Your task to perform on an android device: move an email to a new category in the gmail app Image 0: 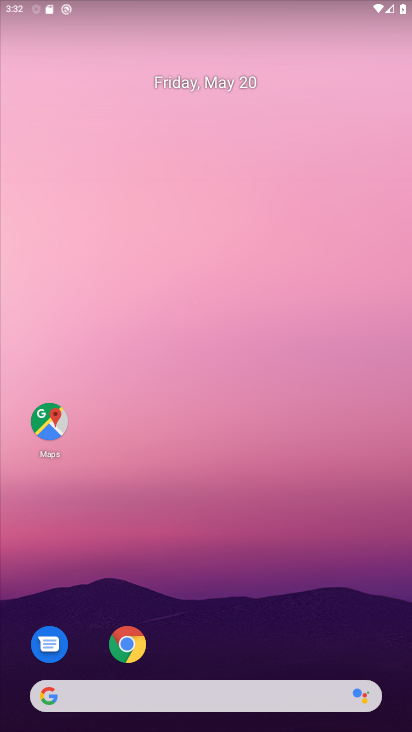
Step 0: drag from (266, 592) to (328, 213)
Your task to perform on an android device: move an email to a new category in the gmail app Image 1: 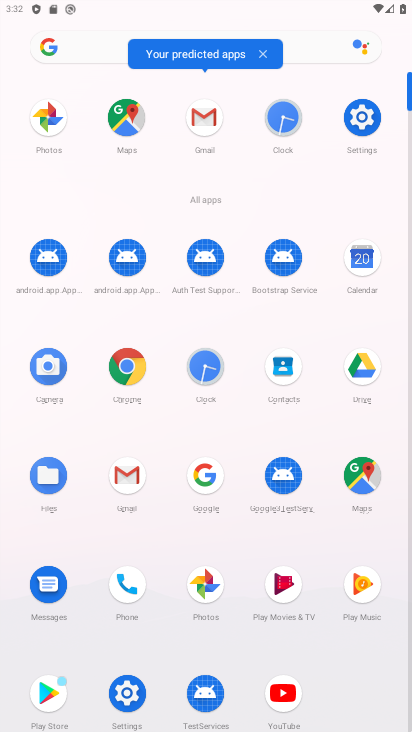
Step 1: click (129, 486)
Your task to perform on an android device: move an email to a new category in the gmail app Image 2: 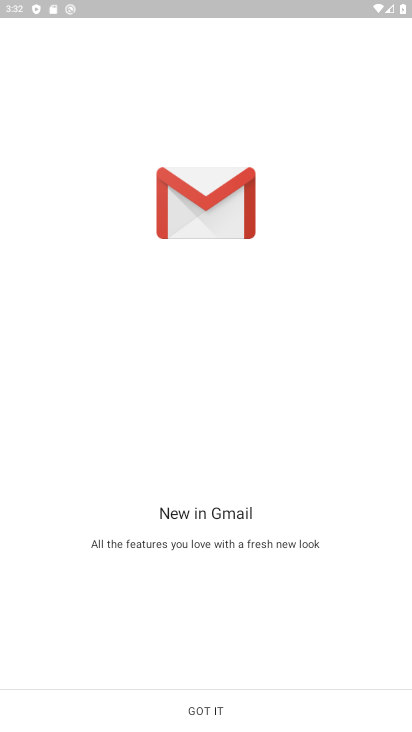
Step 2: click (200, 706)
Your task to perform on an android device: move an email to a new category in the gmail app Image 3: 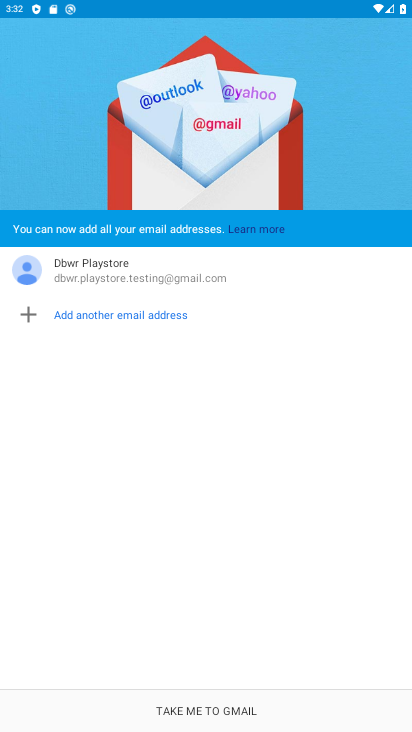
Step 3: click (202, 706)
Your task to perform on an android device: move an email to a new category in the gmail app Image 4: 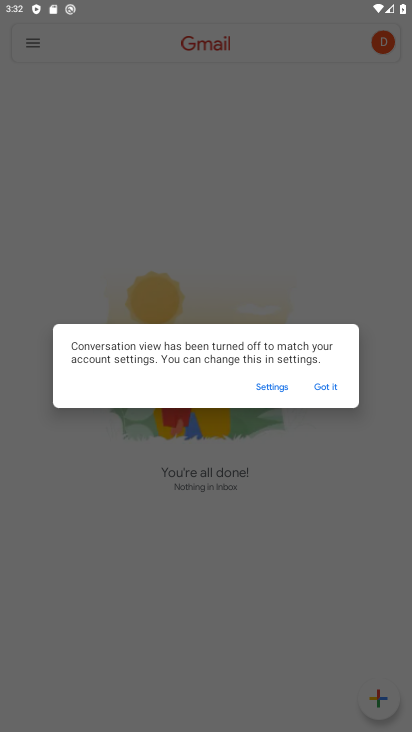
Step 4: click (335, 384)
Your task to perform on an android device: move an email to a new category in the gmail app Image 5: 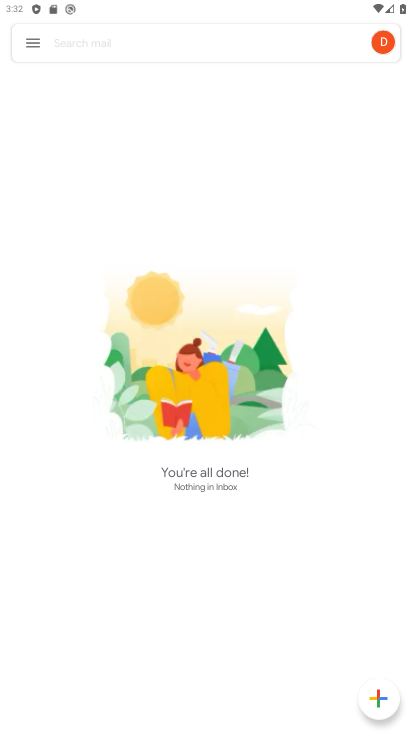
Step 5: task complete